Your task to perform on an android device: turn off translation in the chrome app Image 0: 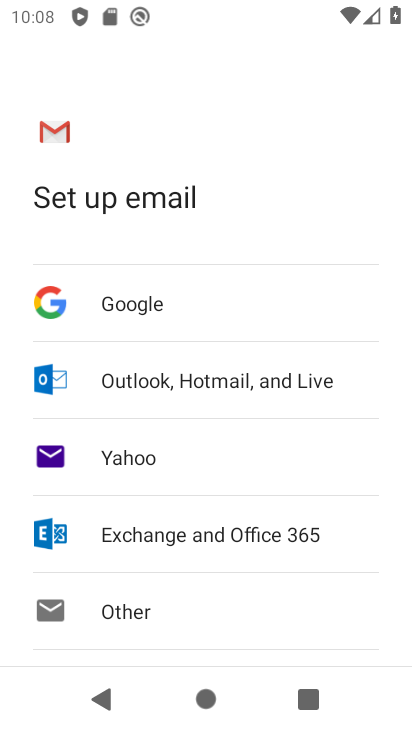
Step 0: press home button
Your task to perform on an android device: turn off translation in the chrome app Image 1: 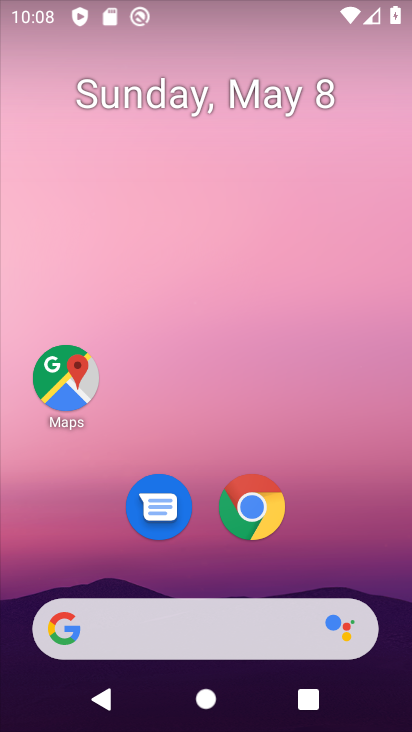
Step 1: click (263, 506)
Your task to perform on an android device: turn off translation in the chrome app Image 2: 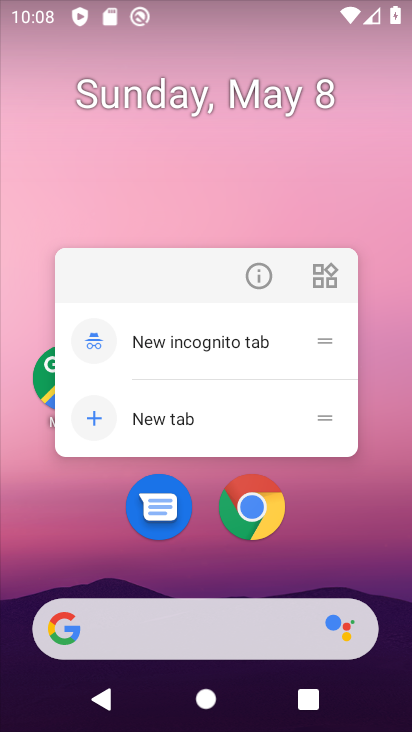
Step 2: click (264, 506)
Your task to perform on an android device: turn off translation in the chrome app Image 3: 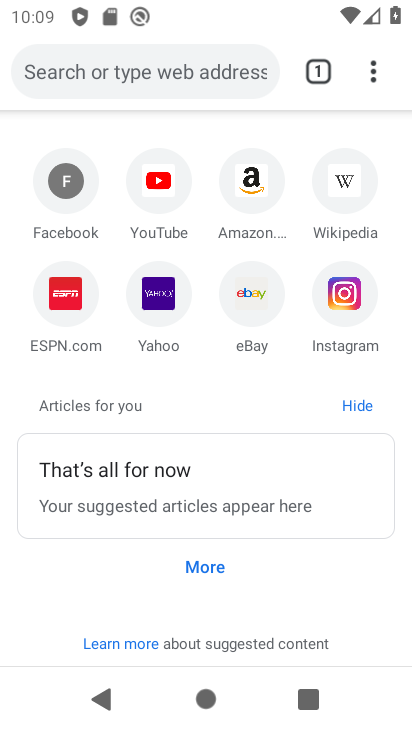
Step 3: click (373, 69)
Your task to perform on an android device: turn off translation in the chrome app Image 4: 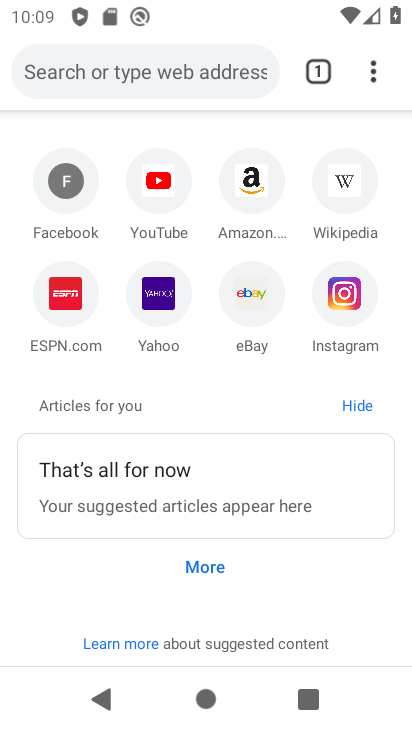
Step 4: click (369, 82)
Your task to perform on an android device: turn off translation in the chrome app Image 5: 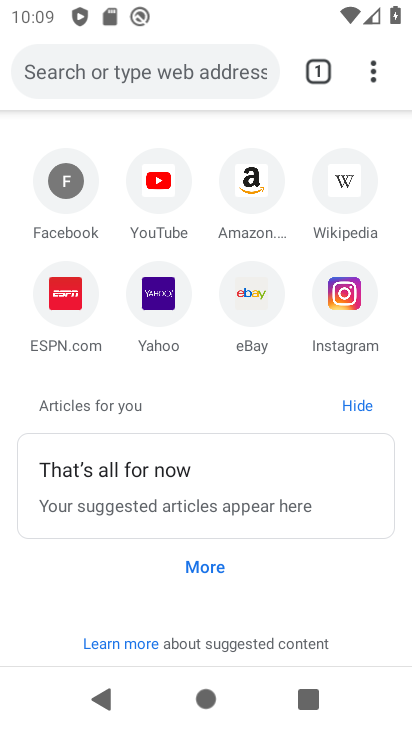
Step 5: click (369, 82)
Your task to perform on an android device: turn off translation in the chrome app Image 6: 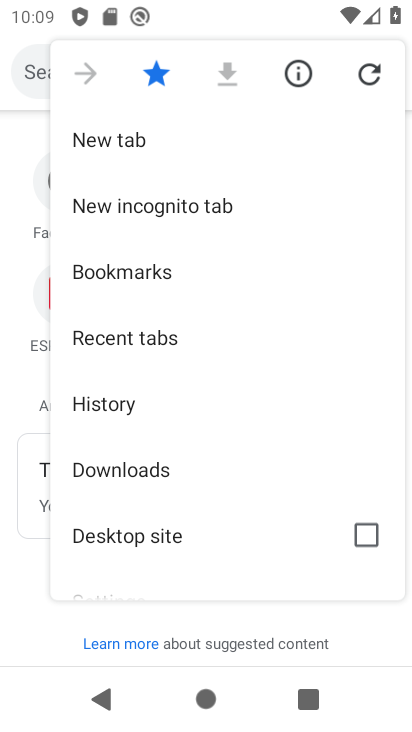
Step 6: drag from (175, 505) to (178, 321)
Your task to perform on an android device: turn off translation in the chrome app Image 7: 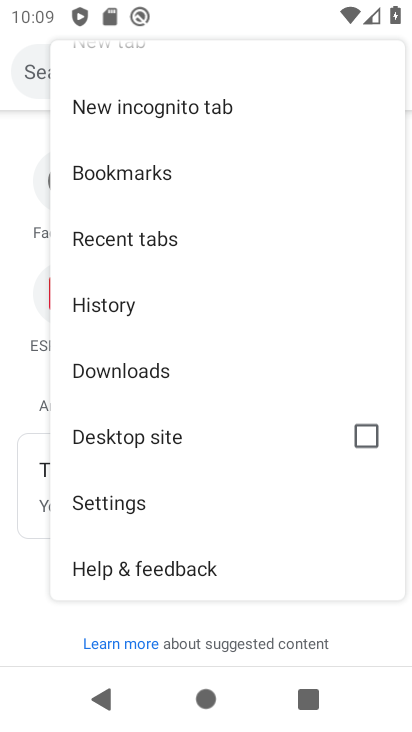
Step 7: click (106, 509)
Your task to perform on an android device: turn off translation in the chrome app Image 8: 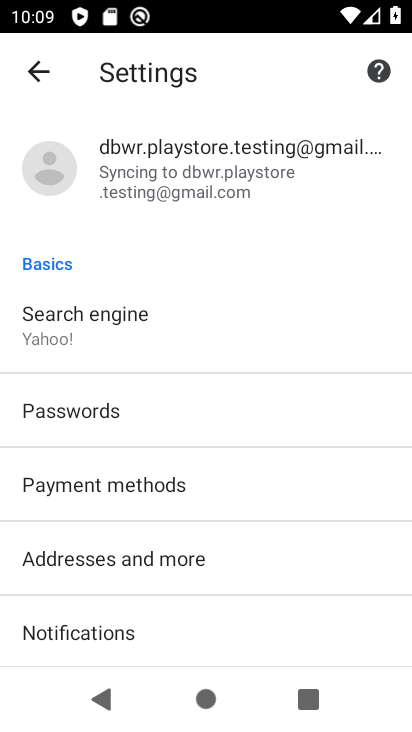
Step 8: drag from (105, 619) to (165, 383)
Your task to perform on an android device: turn off translation in the chrome app Image 9: 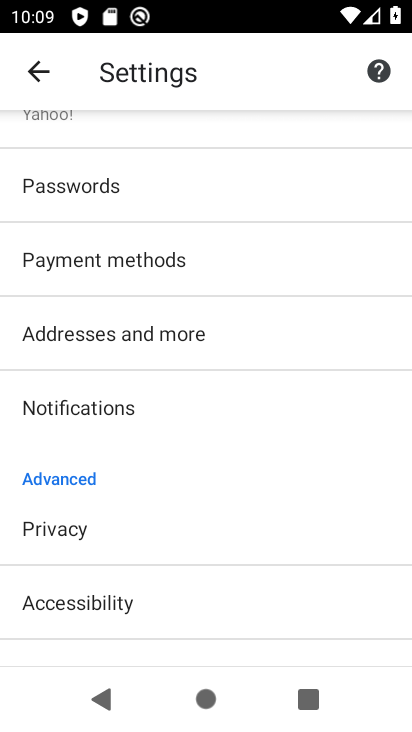
Step 9: drag from (169, 568) to (177, 348)
Your task to perform on an android device: turn off translation in the chrome app Image 10: 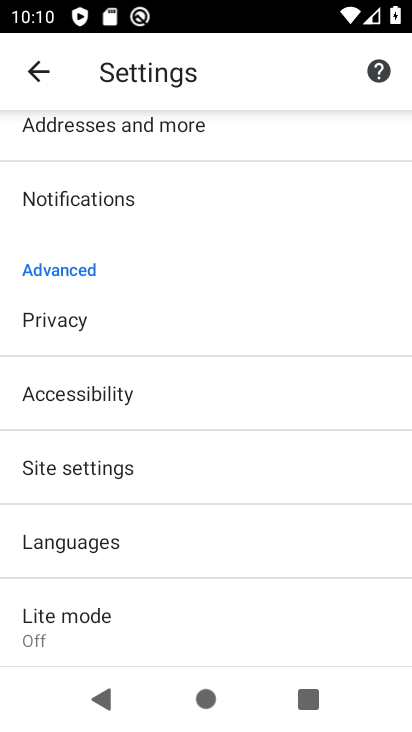
Step 10: click (148, 551)
Your task to perform on an android device: turn off translation in the chrome app Image 11: 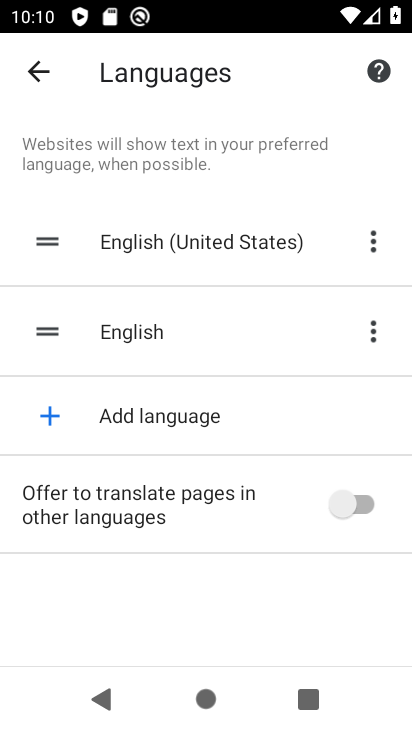
Step 11: task complete